Your task to perform on an android device: Go to Yahoo.com Image 0: 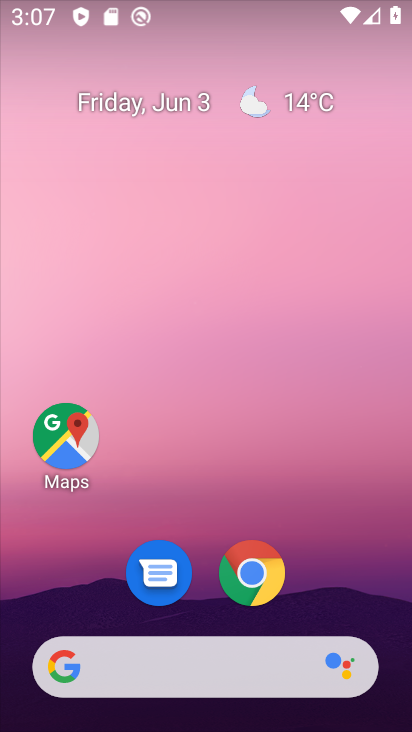
Step 0: drag from (303, 675) to (353, 0)
Your task to perform on an android device: Go to Yahoo.com Image 1: 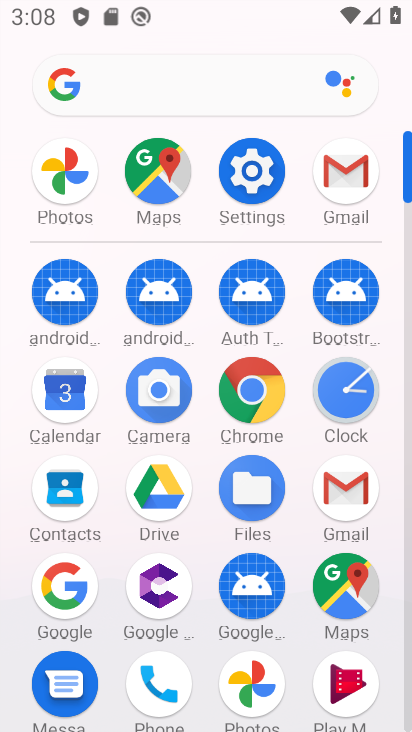
Step 1: click (268, 372)
Your task to perform on an android device: Go to Yahoo.com Image 2: 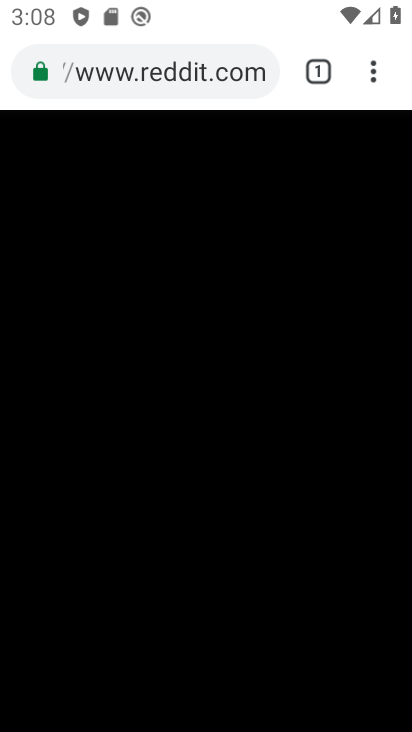
Step 2: click (216, 98)
Your task to perform on an android device: Go to Yahoo.com Image 3: 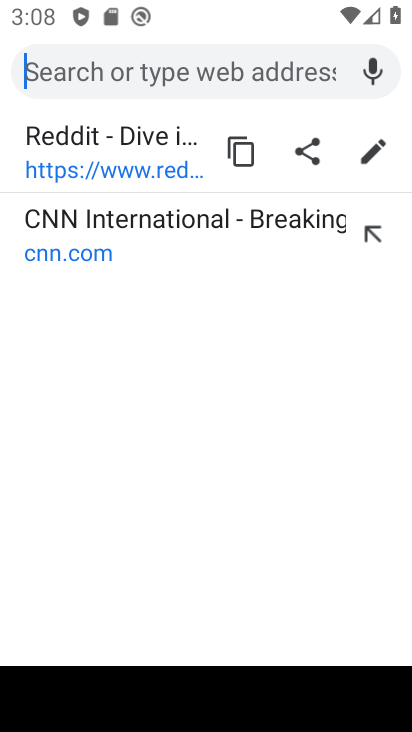
Step 3: type "yahoo.com"
Your task to perform on an android device: Go to Yahoo.com Image 4: 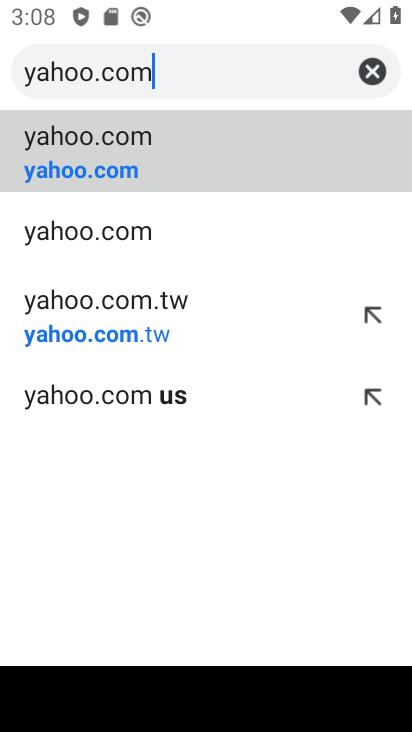
Step 4: click (185, 159)
Your task to perform on an android device: Go to Yahoo.com Image 5: 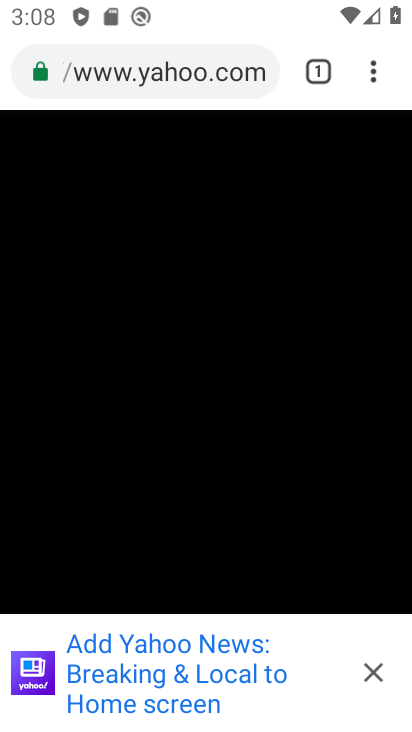
Step 5: task complete